Your task to perform on an android device: Open Google Chrome and click the shortcut for Amazon.com Image 0: 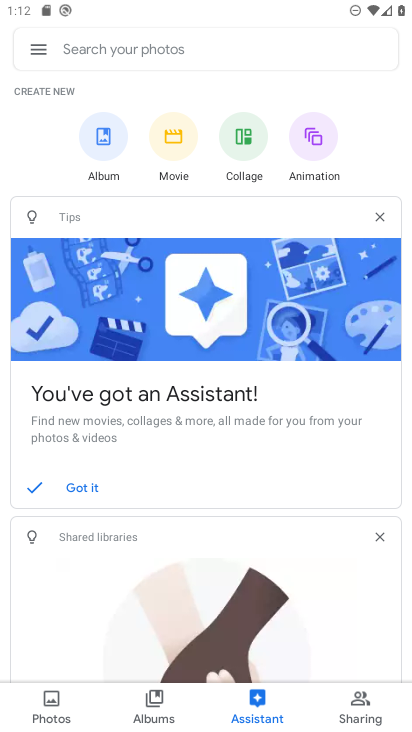
Step 0: press home button
Your task to perform on an android device: Open Google Chrome and click the shortcut for Amazon.com Image 1: 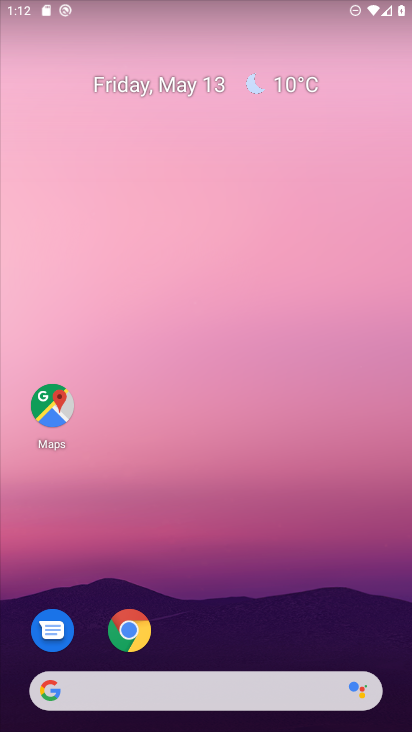
Step 1: click (128, 626)
Your task to perform on an android device: Open Google Chrome and click the shortcut for Amazon.com Image 2: 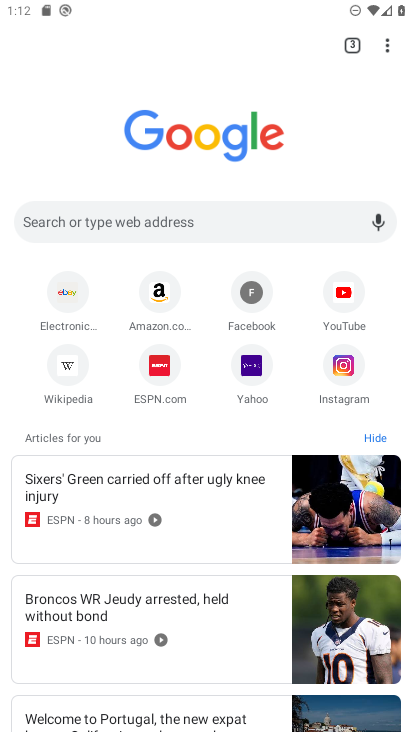
Step 2: click (160, 275)
Your task to perform on an android device: Open Google Chrome and click the shortcut for Amazon.com Image 3: 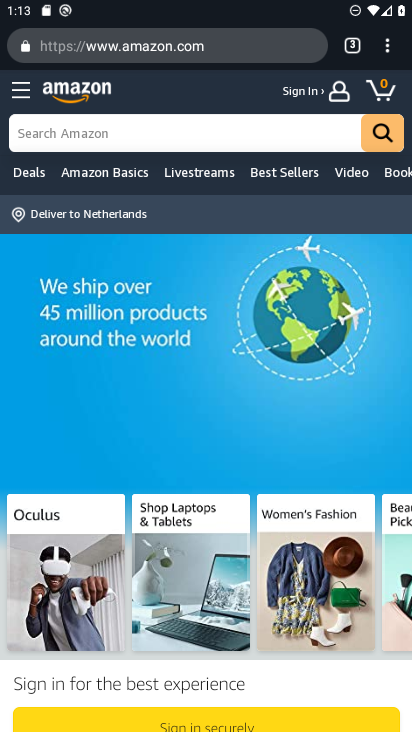
Step 3: task complete